Your task to perform on an android device: What's the weather going to be tomorrow? Image 0: 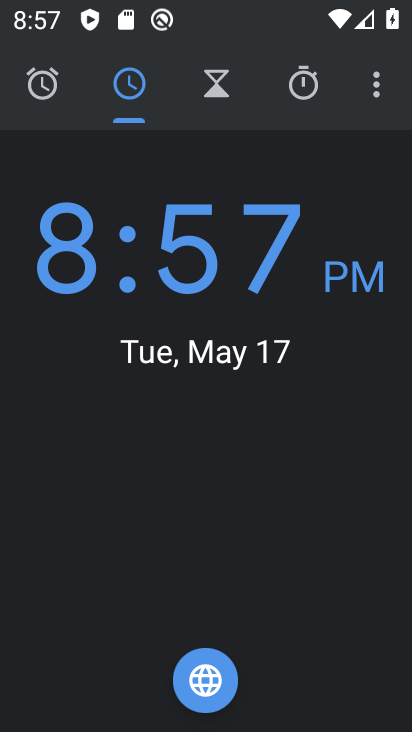
Step 0: press home button
Your task to perform on an android device: What's the weather going to be tomorrow? Image 1: 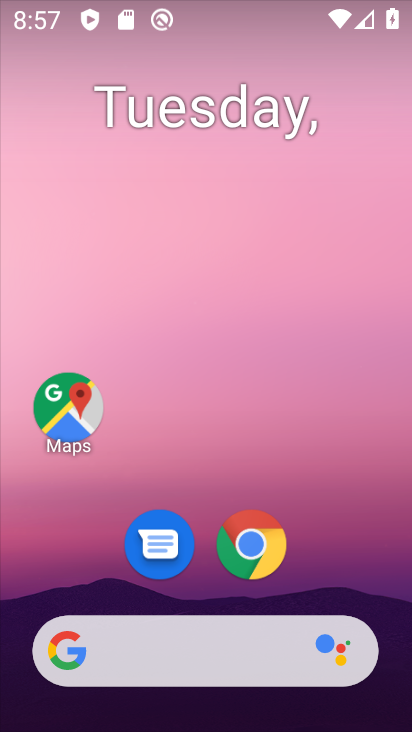
Step 1: drag from (211, 584) to (248, 4)
Your task to perform on an android device: What's the weather going to be tomorrow? Image 2: 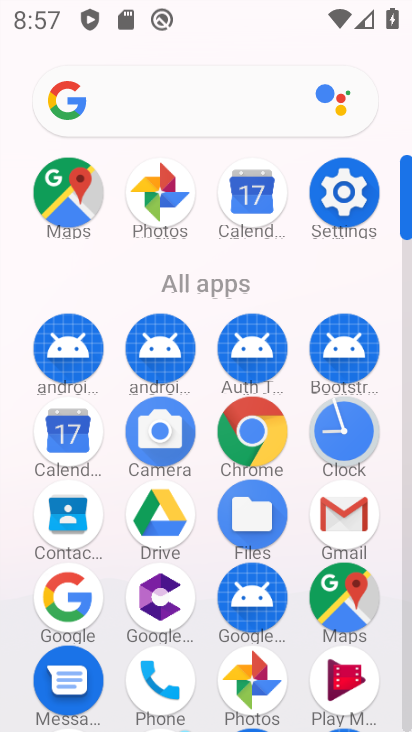
Step 2: click (52, 602)
Your task to perform on an android device: What's the weather going to be tomorrow? Image 3: 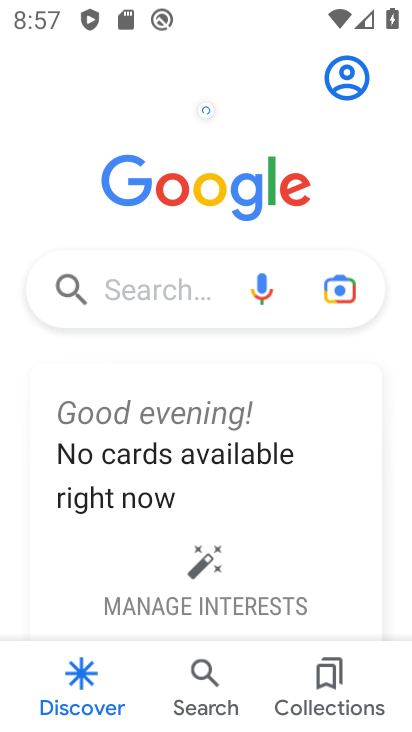
Step 3: click (103, 302)
Your task to perform on an android device: What's the weather going to be tomorrow? Image 4: 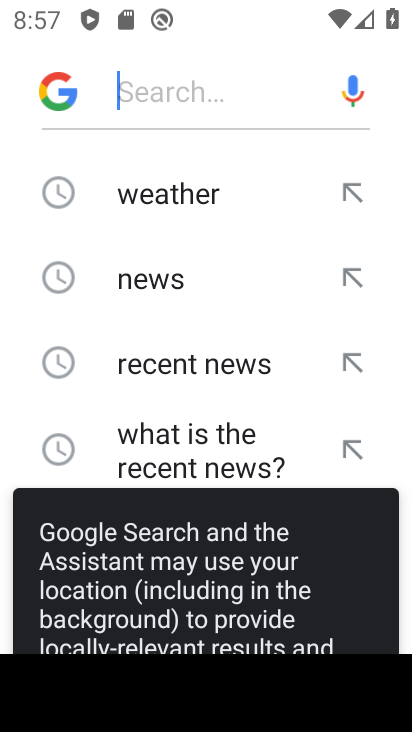
Step 4: click (136, 212)
Your task to perform on an android device: What's the weather going to be tomorrow? Image 5: 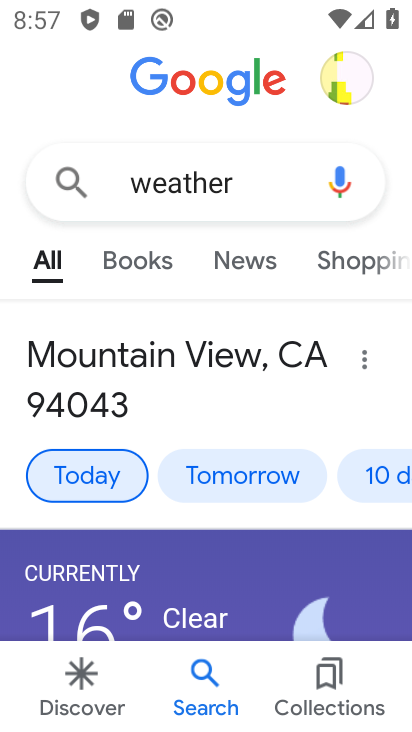
Step 5: click (209, 459)
Your task to perform on an android device: What's the weather going to be tomorrow? Image 6: 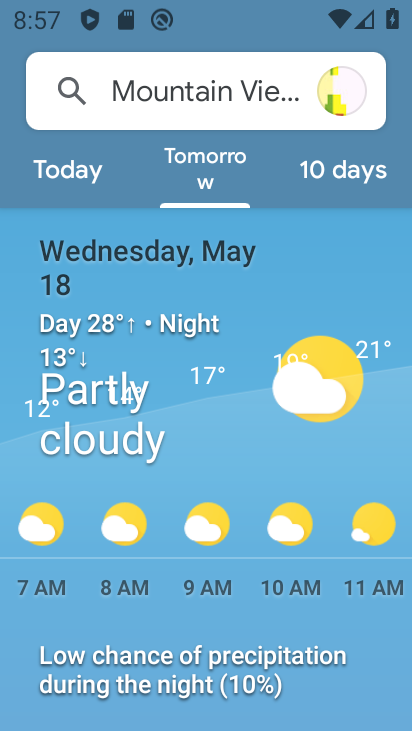
Step 6: task complete